Your task to perform on an android device: turn off notifications settings in the gmail app Image 0: 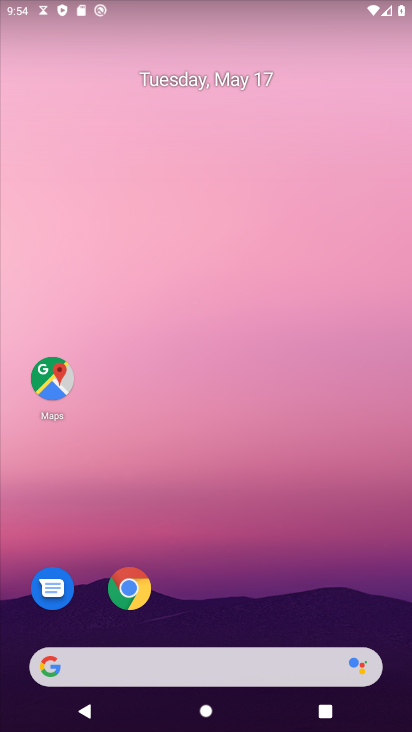
Step 0: drag from (233, 725) to (238, 142)
Your task to perform on an android device: turn off notifications settings in the gmail app Image 1: 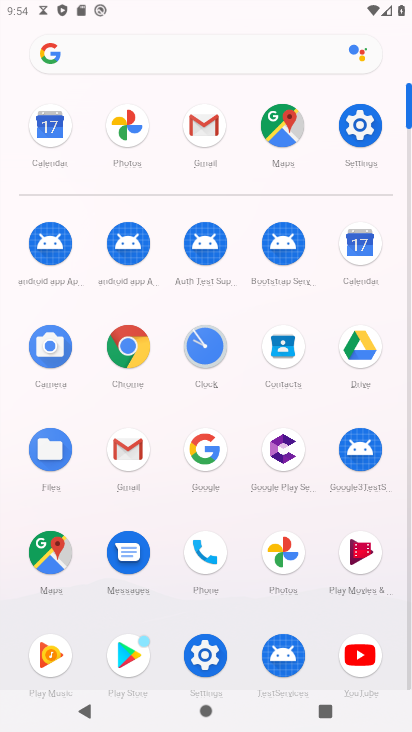
Step 1: click (134, 448)
Your task to perform on an android device: turn off notifications settings in the gmail app Image 2: 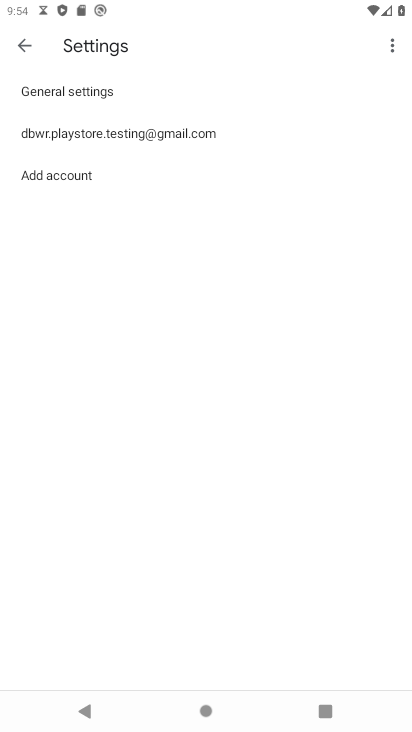
Step 2: click (90, 130)
Your task to perform on an android device: turn off notifications settings in the gmail app Image 3: 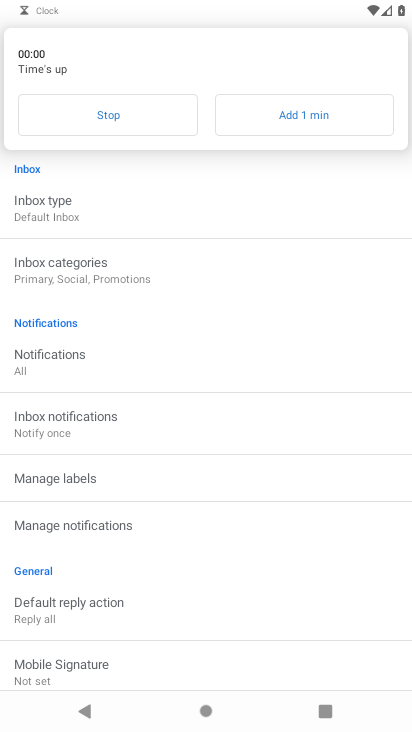
Step 3: click (97, 358)
Your task to perform on an android device: turn off notifications settings in the gmail app Image 4: 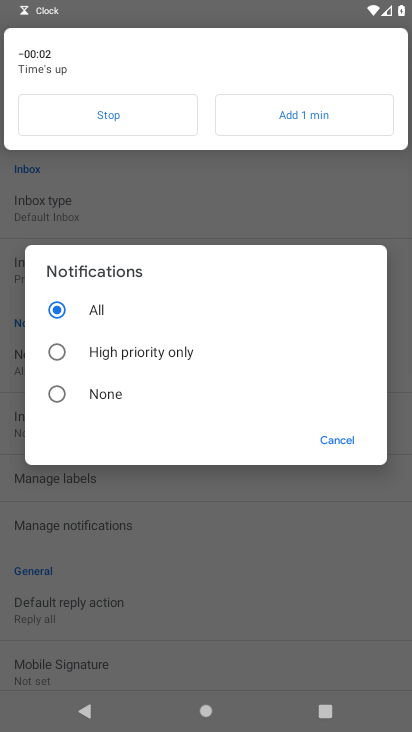
Step 4: click (58, 396)
Your task to perform on an android device: turn off notifications settings in the gmail app Image 5: 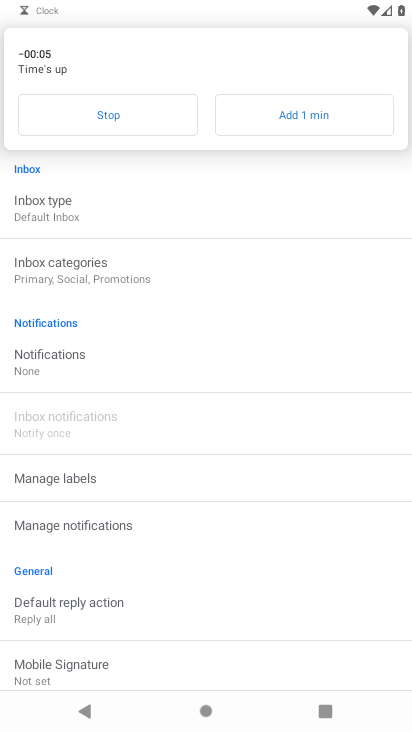
Step 5: task complete